Your task to perform on an android device: Open Yahoo.com Image 0: 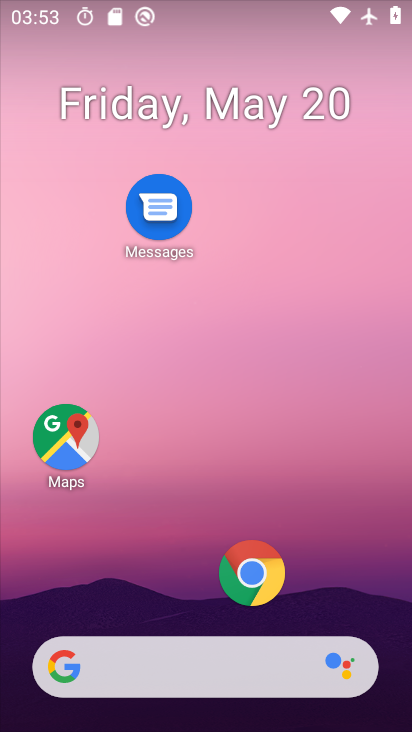
Step 0: click (265, 587)
Your task to perform on an android device: Open Yahoo.com Image 1: 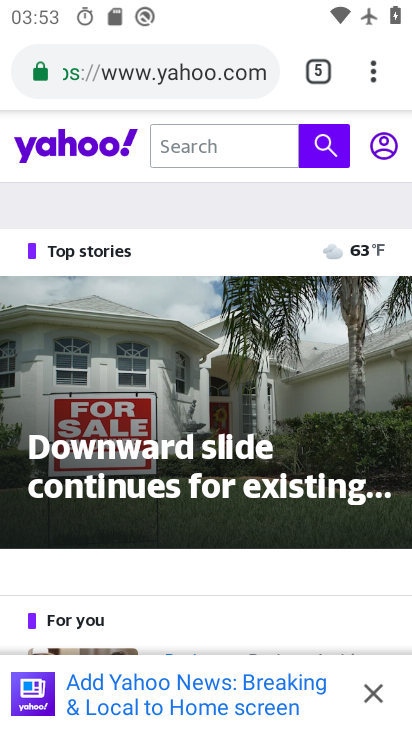
Step 1: task complete